Your task to perform on an android device: Clear the shopping cart on ebay.com. Add razer blade to the cart on ebay.com, then select checkout. Image 0: 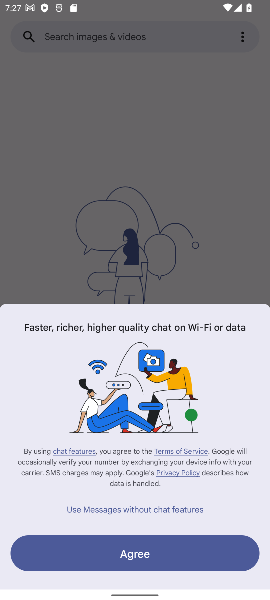
Step 0: press home button
Your task to perform on an android device: Clear the shopping cart on ebay.com. Add razer blade to the cart on ebay.com, then select checkout. Image 1: 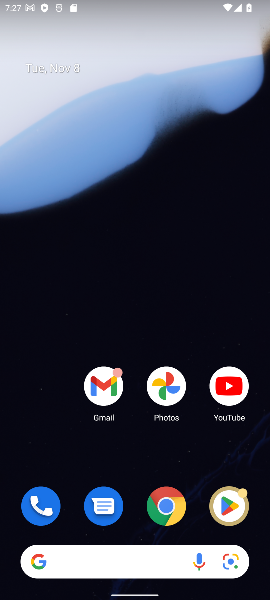
Step 1: drag from (156, 504) to (79, 52)
Your task to perform on an android device: Clear the shopping cart on ebay.com. Add razer blade to the cart on ebay.com, then select checkout. Image 2: 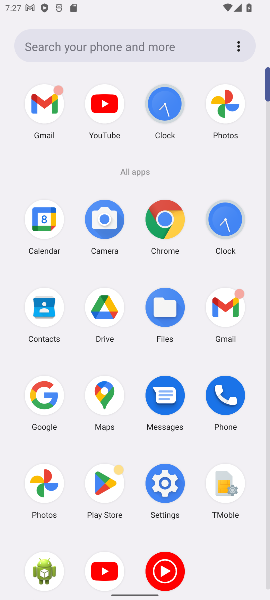
Step 2: click (170, 231)
Your task to perform on an android device: Clear the shopping cart on ebay.com. Add razer blade to the cart on ebay.com, then select checkout. Image 3: 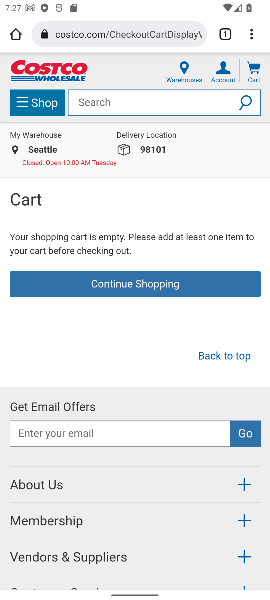
Step 3: click (120, 36)
Your task to perform on an android device: Clear the shopping cart on ebay.com. Add razer blade to the cart on ebay.com, then select checkout. Image 4: 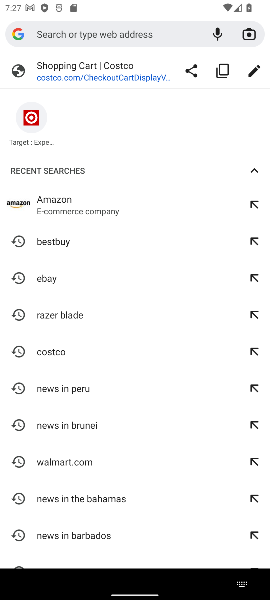
Step 4: type "ebay.com"
Your task to perform on an android device: Clear the shopping cart on ebay.com. Add razer blade to the cart on ebay.com, then select checkout. Image 5: 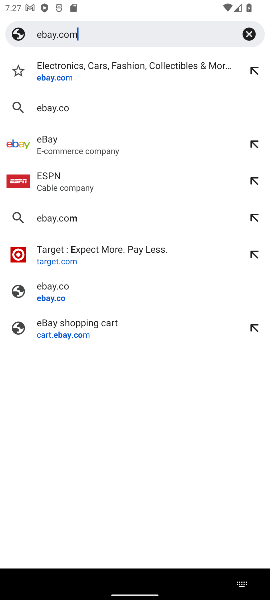
Step 5: press enter
Your task to perform on an android device: Clear the shopping cart on ebay.com. Add razer blade to the cart on ebay.com, then select checkout. Image 6: 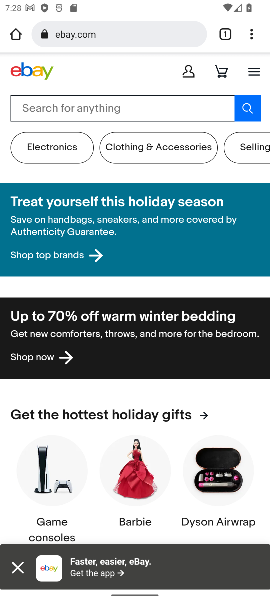
Step 6: click (220, 67)
Your task to perform on an android device: Clear the shopping cart on ebay.com. Add razer blade to the cart on ebay.com, then select checkout. Image 7: 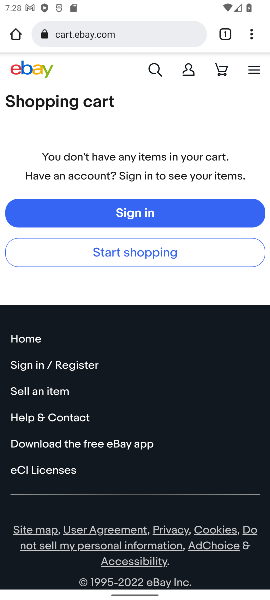
Step 7: click (153, 69)
Your task to perform on an android device: Clear the shopping cart on ebay.com. Add razer blade to the cart on ebay.com, then select checkout. Image 8: 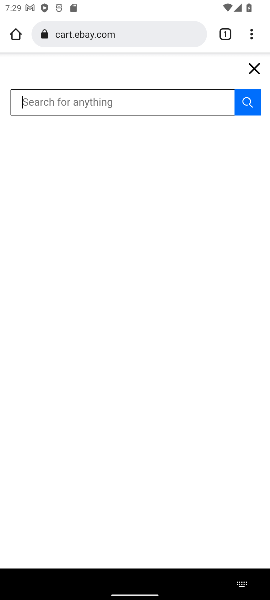
Step 8: type " razer blade to the cart"
Your task to perform on an android device: Clear the shopping cart on ebay.com. Add razer blade to the cart on ebay.com, then select checkout. Image 9: 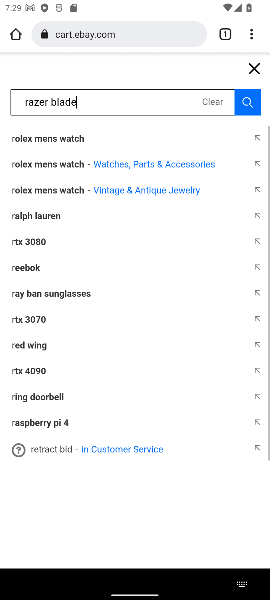
Step 9: press enter
Your task to perform on an android device: Clear the shopping cart on ebay.com. Add razer blade to the cart on ebay.com, then select checkout. Image 10: 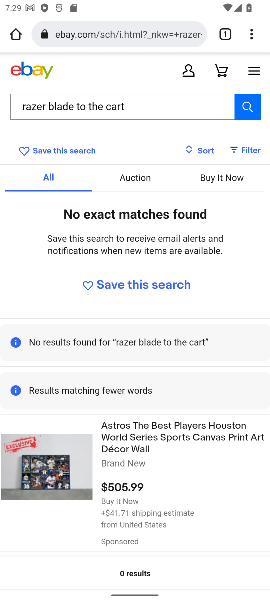
Step 10: drag from (125, 481) to (143, 240)
Your task to perform on an android device: Clear the shopping cart on ebay.com. Add razer blade to the cart on ebay.com, then select checkout. Image 11: 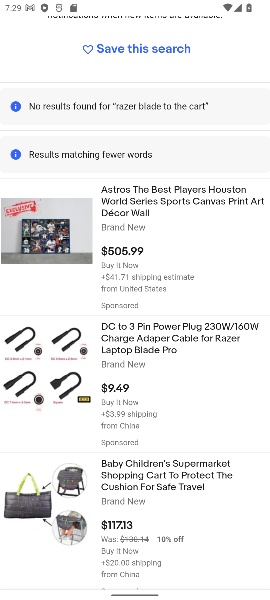
Step 11: click (123, 220)
Your task to perform on an android device: Clear the shopping cart on ebay.com. Add razer blade to the cart on ebay.com, then select checkout. Image 12: 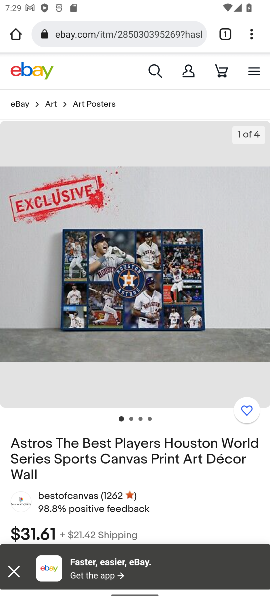
Step 12: drag from (196, 427) to (135, 192)
Your task to perform on an android device: Clear the shopping cart on ebay.com. Add razer blade to the cart on ebay.com, then select checkout. Image 13: 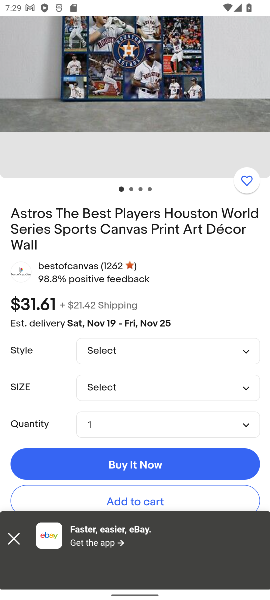
Step 13: drag from (193, 402) to (177, 281)
Your task to perform on an android device: Clear the shopping cart on ebay.com. Add razer blade to the cart on ebay.com, then select checkout. Image 14: 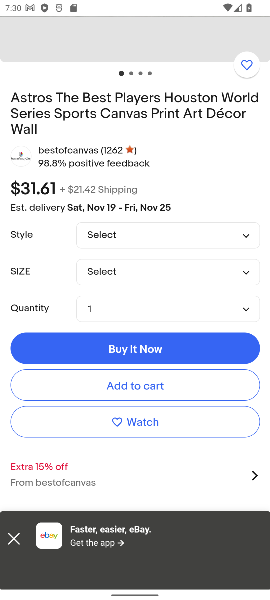
Step 14: click (111, 385)
Your task to perform on an android device: Clear the shopping cart on ebay.com. Add razer blade to the cart on ebay.com, then select checkout. Image 15: 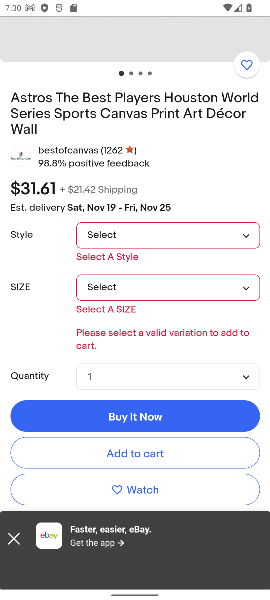
Step 15: click (252, 234)
Your task to perform on an android device: Clear the shopping cart on ebay.com. Add razer blade to the cart on ebay.com, then select checkout. Image 16: 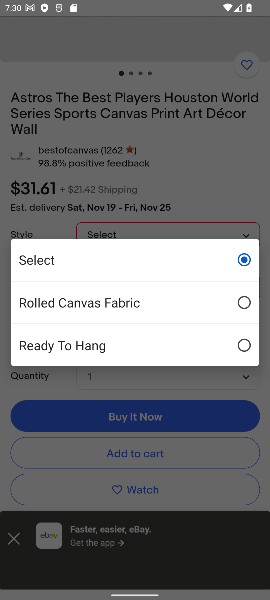
Step 16: click (152, 299)
Your task to perform on an android device: Clear the shopping cart on ebay.com. Add razer blade to the cart on ebay.com, then select checkout. Image 17: 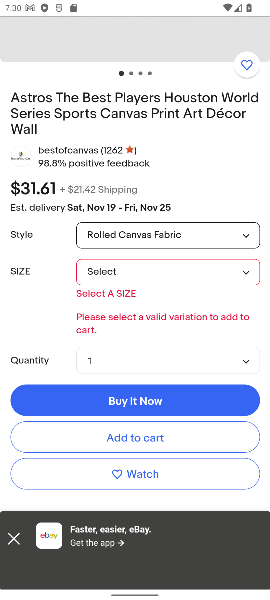
Step 17: click (176, 272)
Your task to perform on an android device: Clear the shopping cart on ebay.com. Add razer blade to the cart on ebay.com, then select checkout. Image 18: 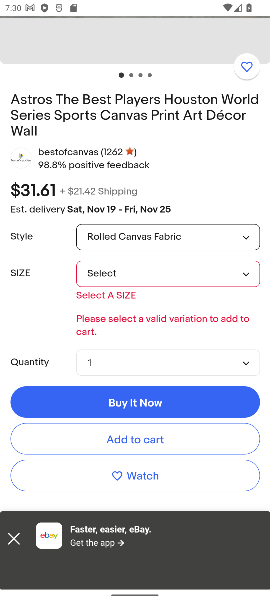
Step 18: click (241, 271)
Your task to perform on an android device: Clear the shopping cart on ebay.com. Add razer blade to the cart on ebay.com, then select checkout. Image 19: 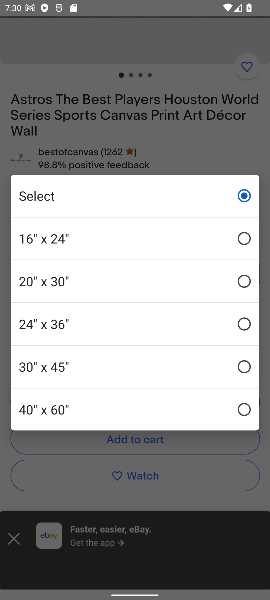
Step 19: click (170, 329)
Your task to perform on an android device: Clear the shopping cart on ebay.com. Add razer blade to the cart on ebay.com, then select checkout. Image 20: 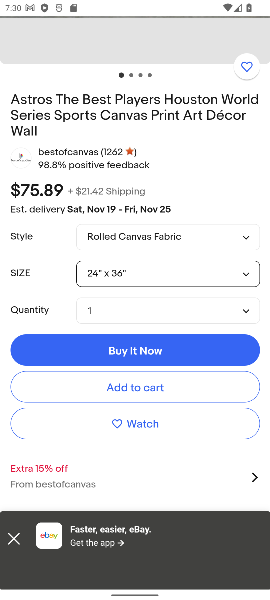
Step 20: click (151, 385)
Your task to perform on an android device: Clear the shopping cart on ebay.com. Add razer blade to the cart on ebay.com, then select checkout. Image 21: 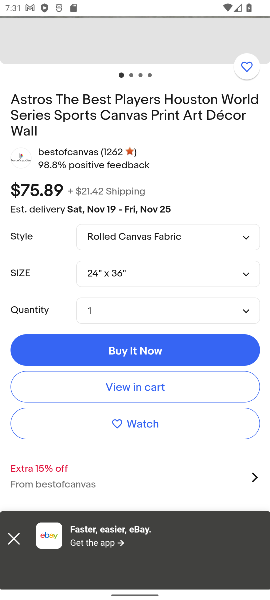
Step 21: click (163, 383)
Your task to perform on an android device: Clear the shopping cart on ebay.com. Add razer blade to the cart on ebay.com, then select checkout. Image 22: 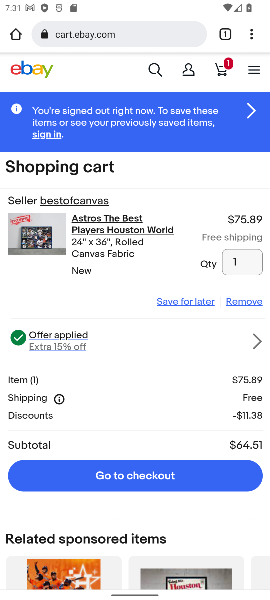
Step 22: click (148, 472)
Your task to perform on an android device: Clear the shopping cart on ebay.com. Add razer blade to the cart on ebay.com, then select checkout. Image 23: 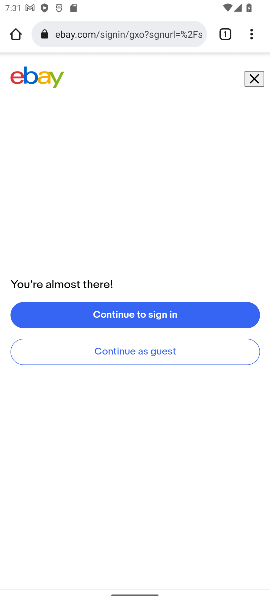
Step 23: task complete